Your task to perform on an android device: Go to Reddit.com Image 0: 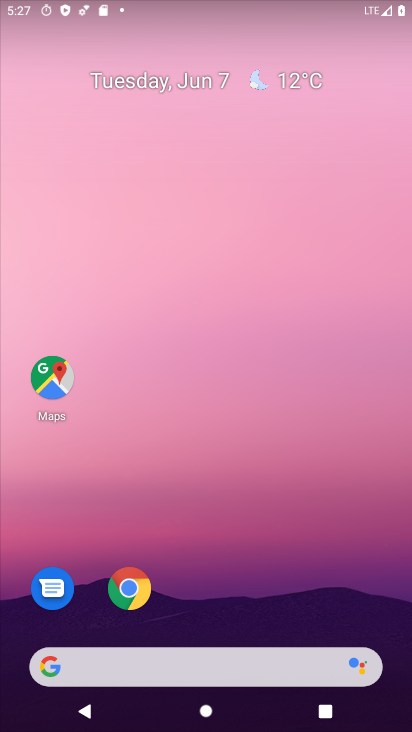
Step 0: click (120, 599)
Your task to perform on an android device: Go to Reddit.com Image 1: 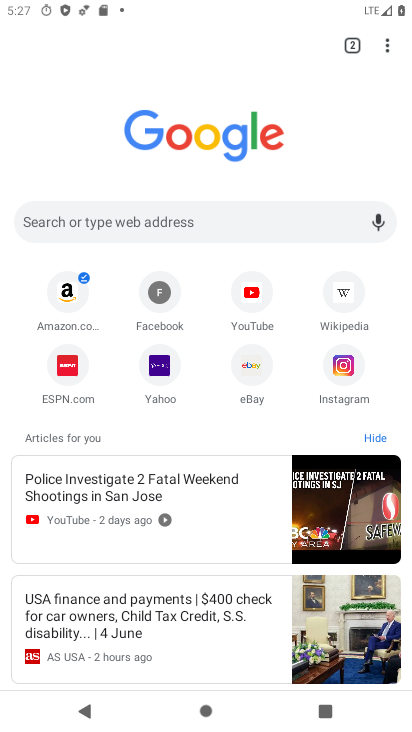
Step 1: click (212, 235)
Your task to perform on an android device: Go to Reddit.com Image 2: 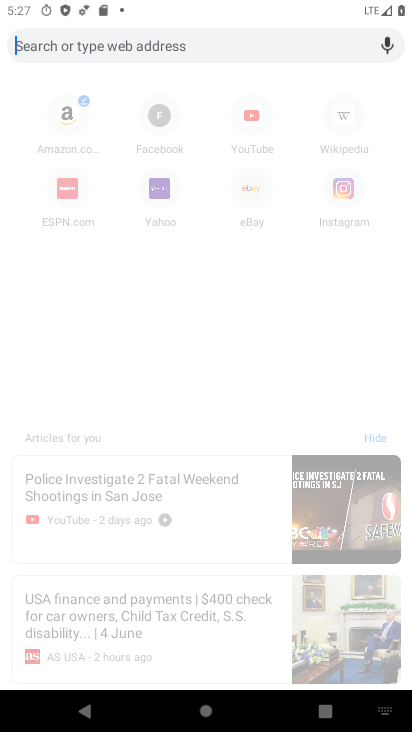
Step 2: type "www.reddit.com"
Your task to perform on an android device: Go to Reddit.com Image 3: 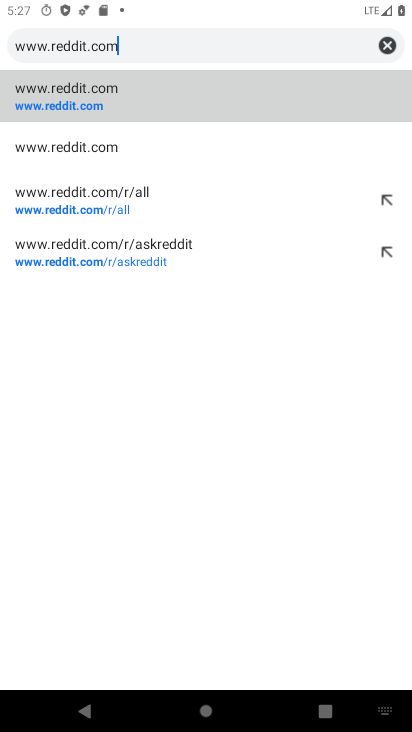
Step 3: click (117, 102)
Your task to perform on an android device: Go to Reddit.com Image 4: 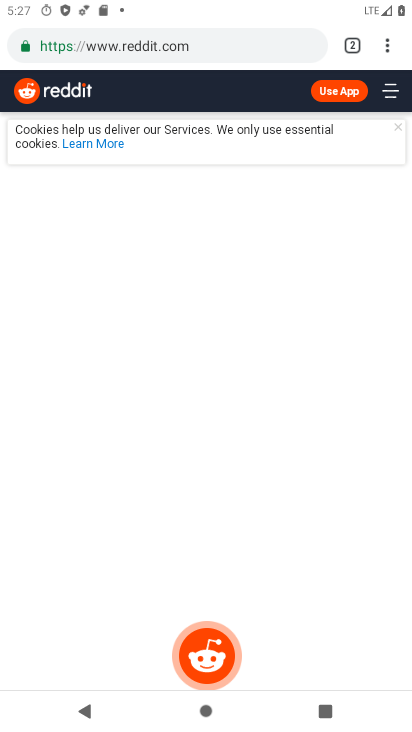
Step 4: task complete